Your task to perform on an android device: turn off airplane mode Image 0: 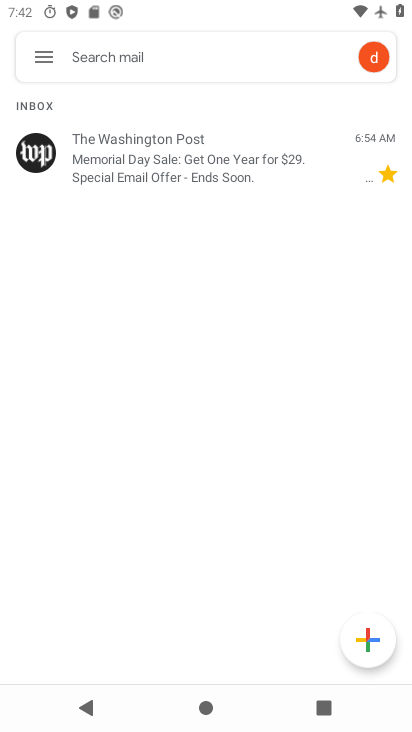
Step 0: press home button
Your task to perform on an android device: turn off airplane mode Image 1: 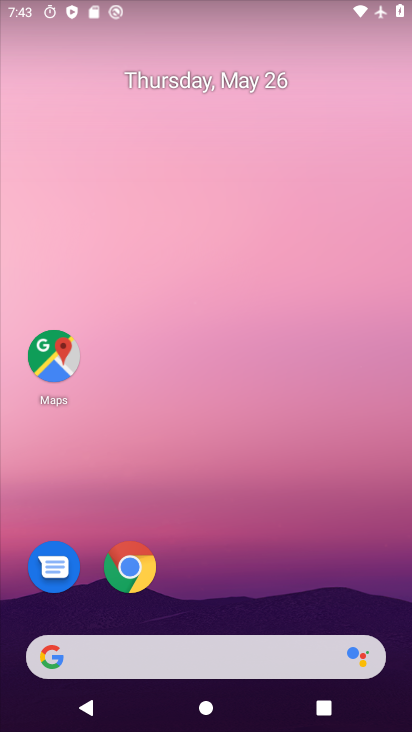
Step 1: drag from (149, 660) to (340, 146)
Your task to perform on an android device: turn off airplane mode Image 2: 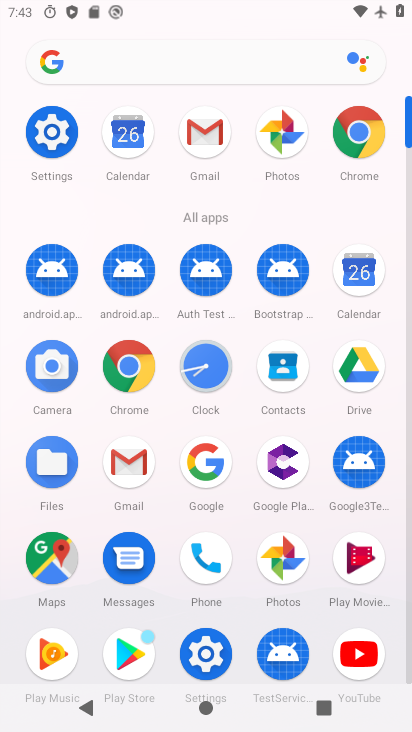
Step 2: click (60, 118)
Your task to perform on an android device: turn off airplane mode Image 3: 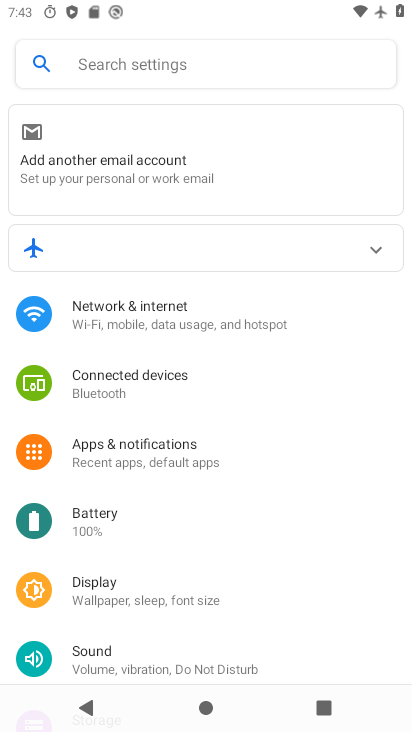
Step 3: click (193, 325)
Your task to perform on an android device: turn off airplane mode Image 4: 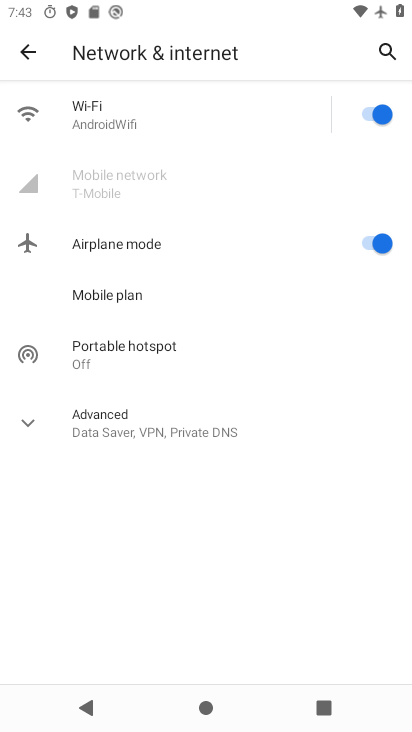
Step 4: click (365, 243)
Your task to perform on an android device: turn off airplane mode Image 5: 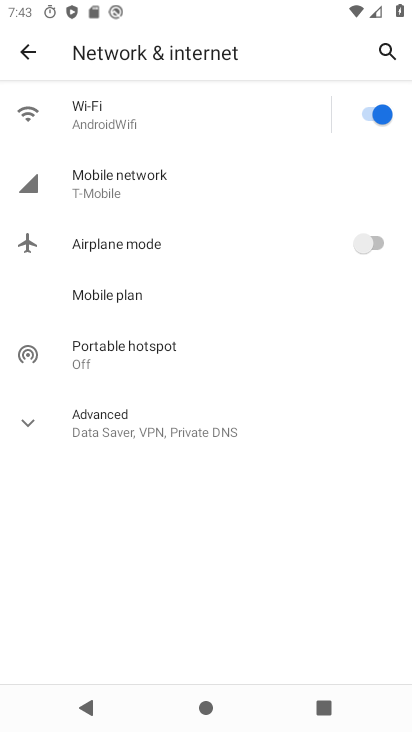
Step 5: task complete